Your task to perform on an android device: What's the weather going to be this weekend? Image 0: 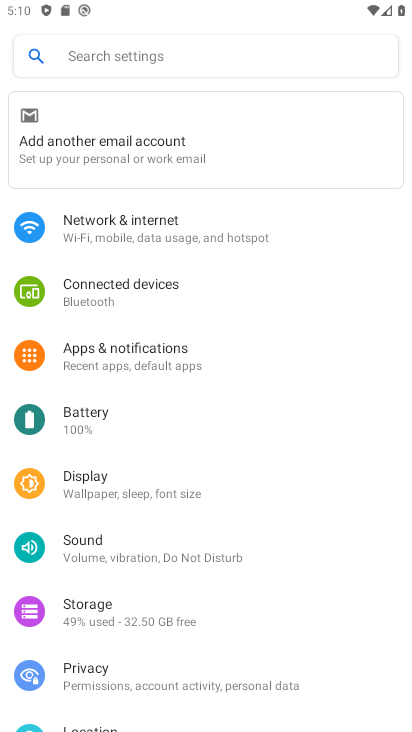
Step 0: press home button
Your task to perform on an android device: What's the weather going to be this weekend? Image 1: 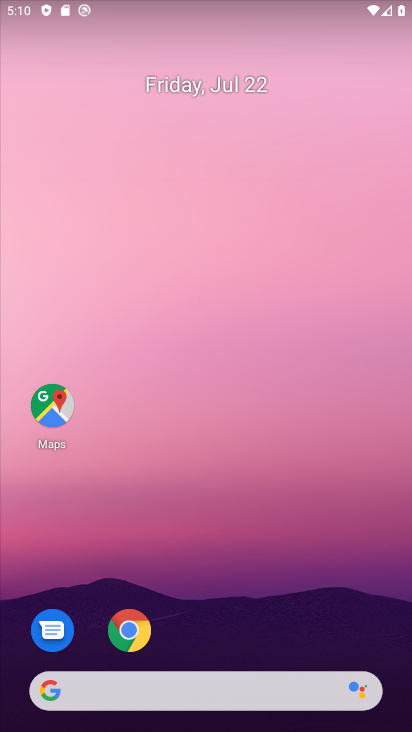
Step 1: drag from (187, 548) to (196, 123)
Your task to perform on an android device: What's the weather going to be this weekend? Image 2: 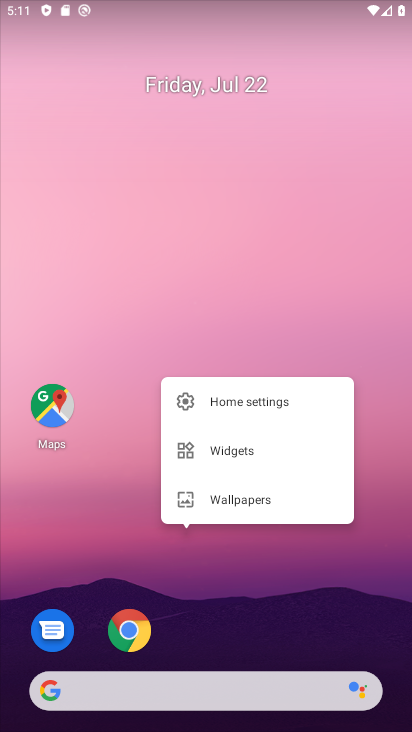
Step 2: click (42, 392)
Your task to perform on an android device: What's the weather going to be this weekend? Image 3: 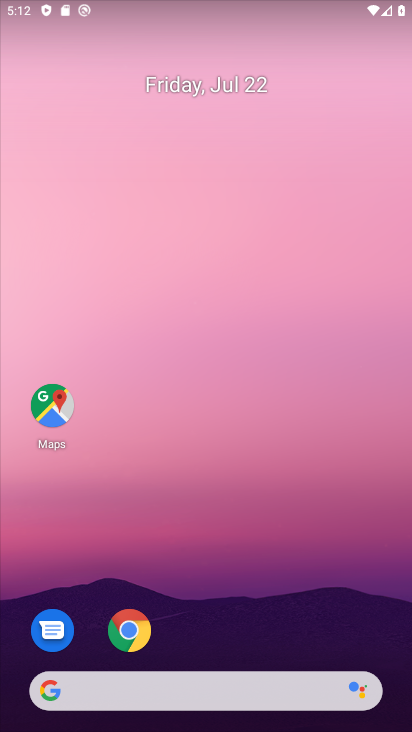
Step 3: drag from (37, 411) to (79, 649)
Your task to perform on an android device: What's the weather going to be this weekend? Image 4: 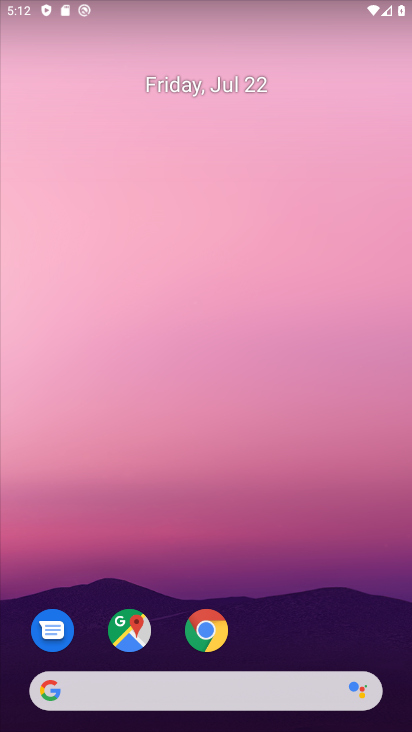
Step 4: drag from (189, 631) to (246, 221)
Your task to perform on an android device: What's the weather going to be this weekend? Image 5: 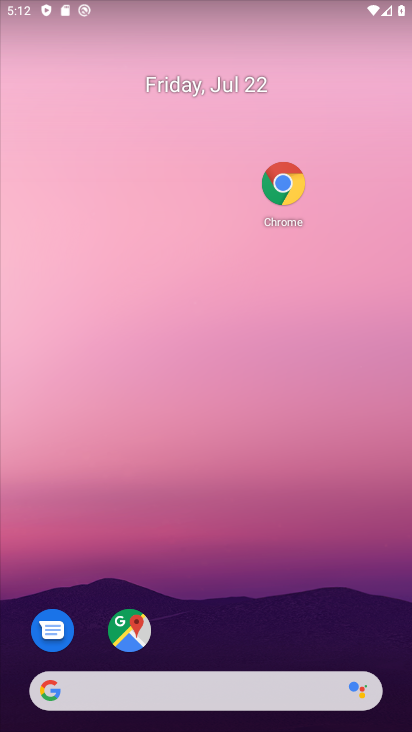
Step 5: click (150, 706)
Your task to perform on an android device: What's the weather going to be this weekend? Image 6: 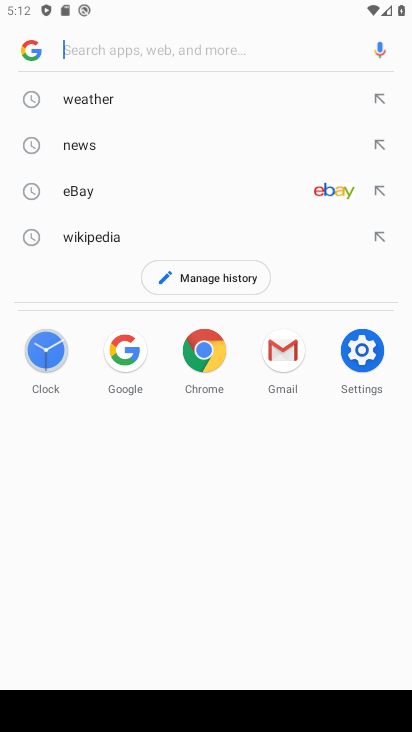
Step 6: click (106, 85)
Your task to perform on an android device: What's the weather going to be this weekend? Image 7: 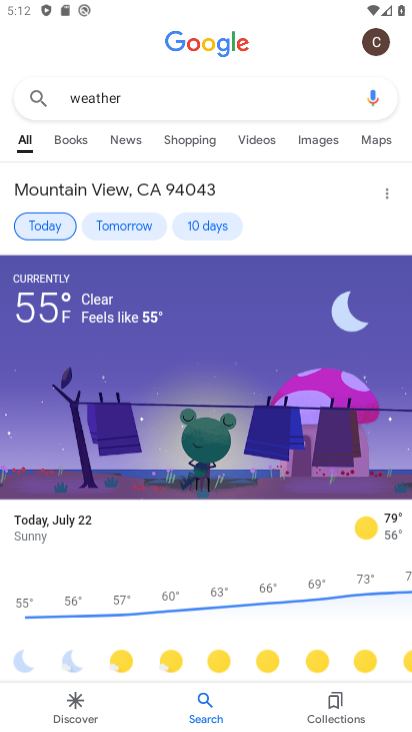
Step 7: click (187, 228)
Your task to perform on an android device: What's the weather going to be this weekend? Image 8: 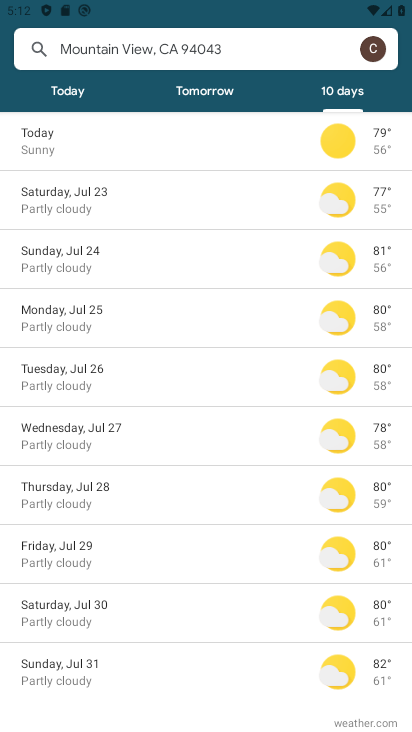
Step 8: task complete